Your task to perform on an android device: manage bookmarks in the chrome app Image 0: 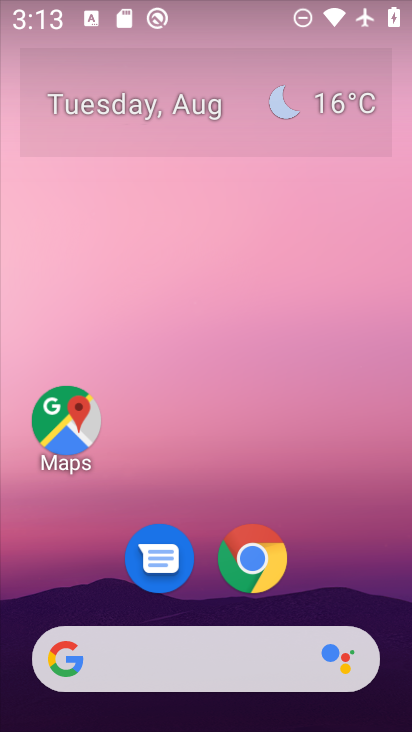
Step 0: click (244, 539)
Your task to perform on an android device: manage bookmarks in the chrome app Image 1: 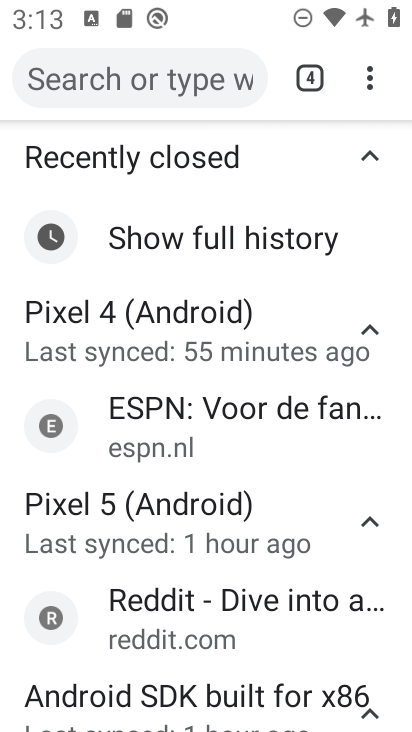
Step 1: click (362, 73)
Your task to perform on an android device: manage bookmarks in the chrome app Image 2: 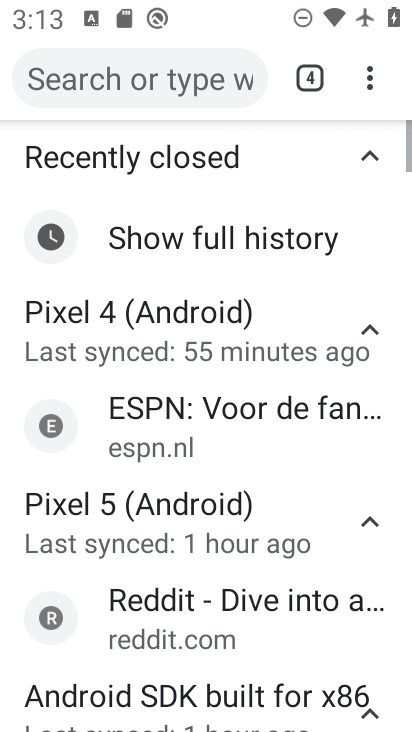
Step 2: click (370, 74)
Your task to perform on an android device: manage bookmarks in the chrome app Image 3: 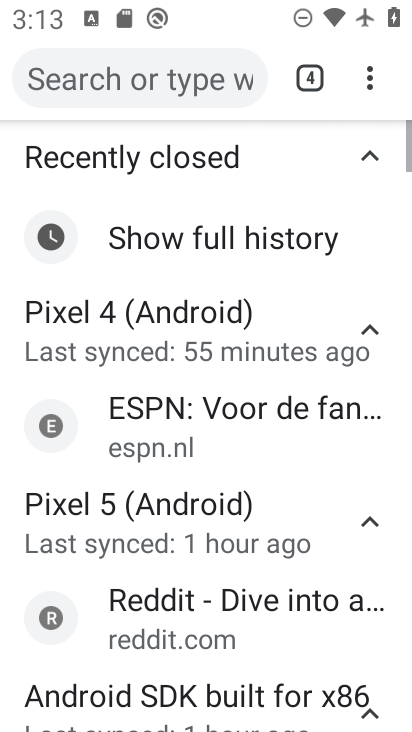
Step 3: click (370, 74)
Your task to perform on an android device: manage bookmarks in the chrome app Image 4: 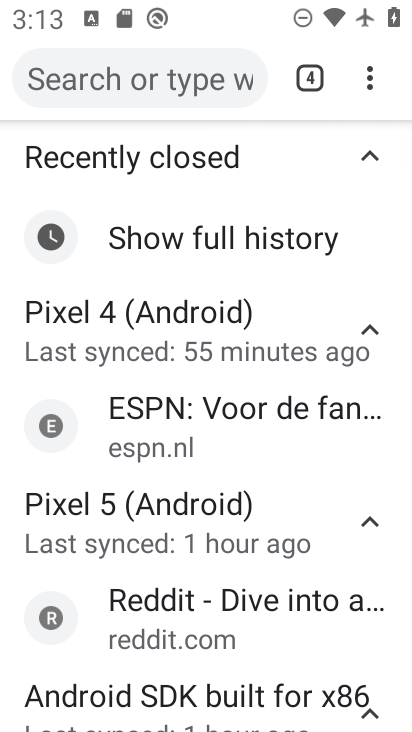
Step 4: drag from (370, 74) to (150, 298)
Your task to perform on an android device: manage bookmarks in the chrome app Image 5: 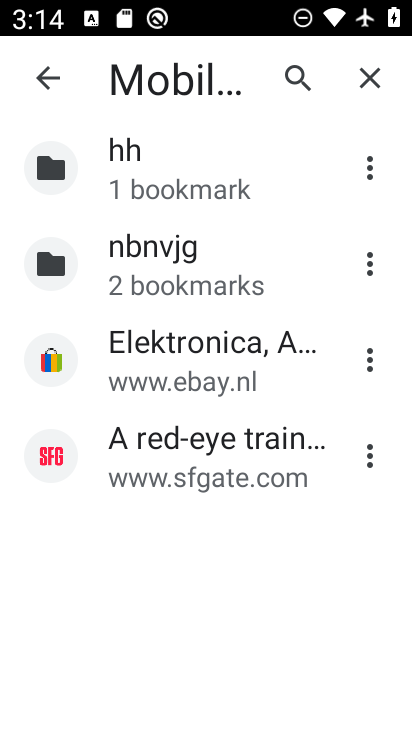
Step 5: click (365, 357)
Your task to perform on an android device: manage bookmarks in the chrome app Image 6: 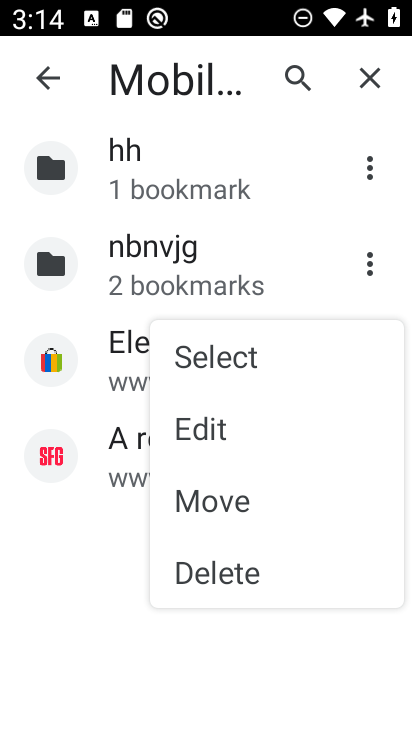
Step 6: click (237, 560)
Your task to perform on an android device: manage bookmarks in the chrome app Image 7: 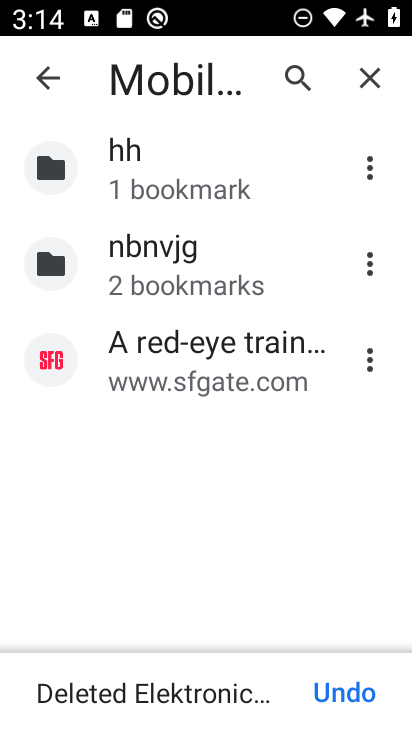
Step 7: task complete